Your task to perform on an android device: Open my contact list Image 0: 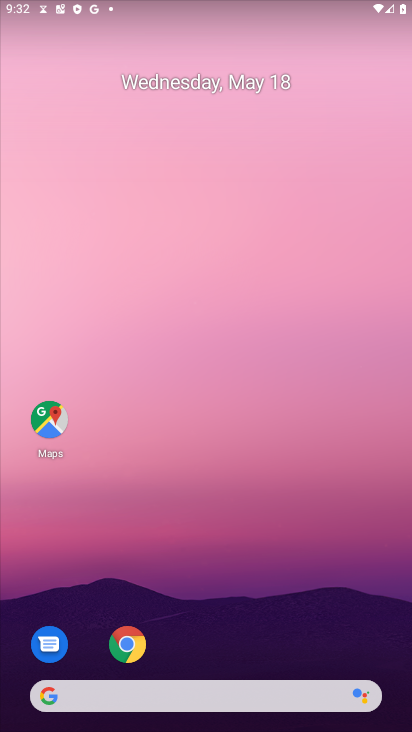
Step 0: drag from (235, 589) to (185, 117)
Your task to perform on an android device: Open my contact list Image 1: 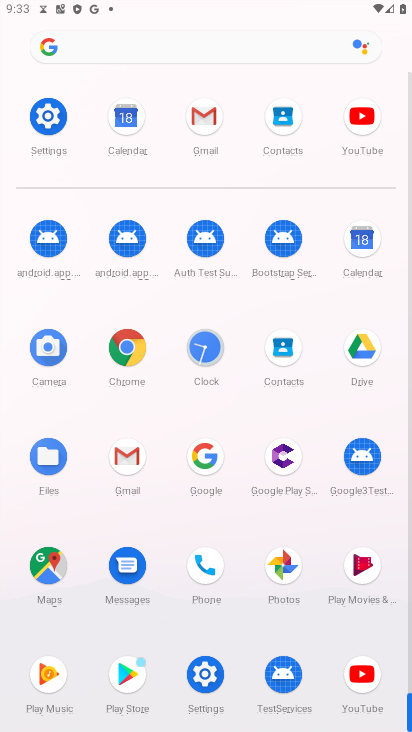
Step 1: click (281, 347)
Your task to perform on an android device: Open my contact list Image 2: 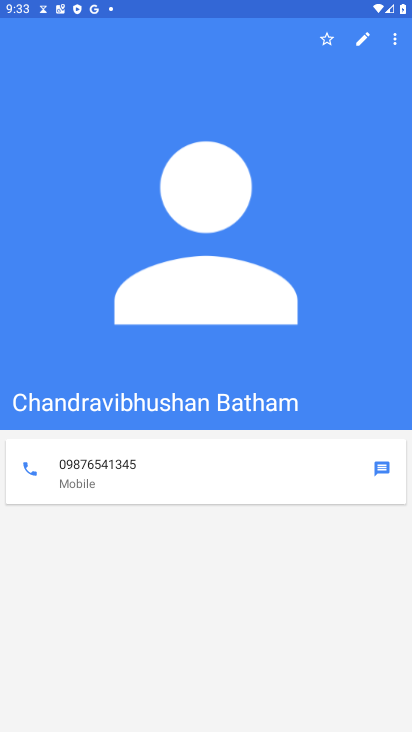
Step 2: task complete